Your task to perform on an android device: uninstall "Facebook Messenger" Image 0: 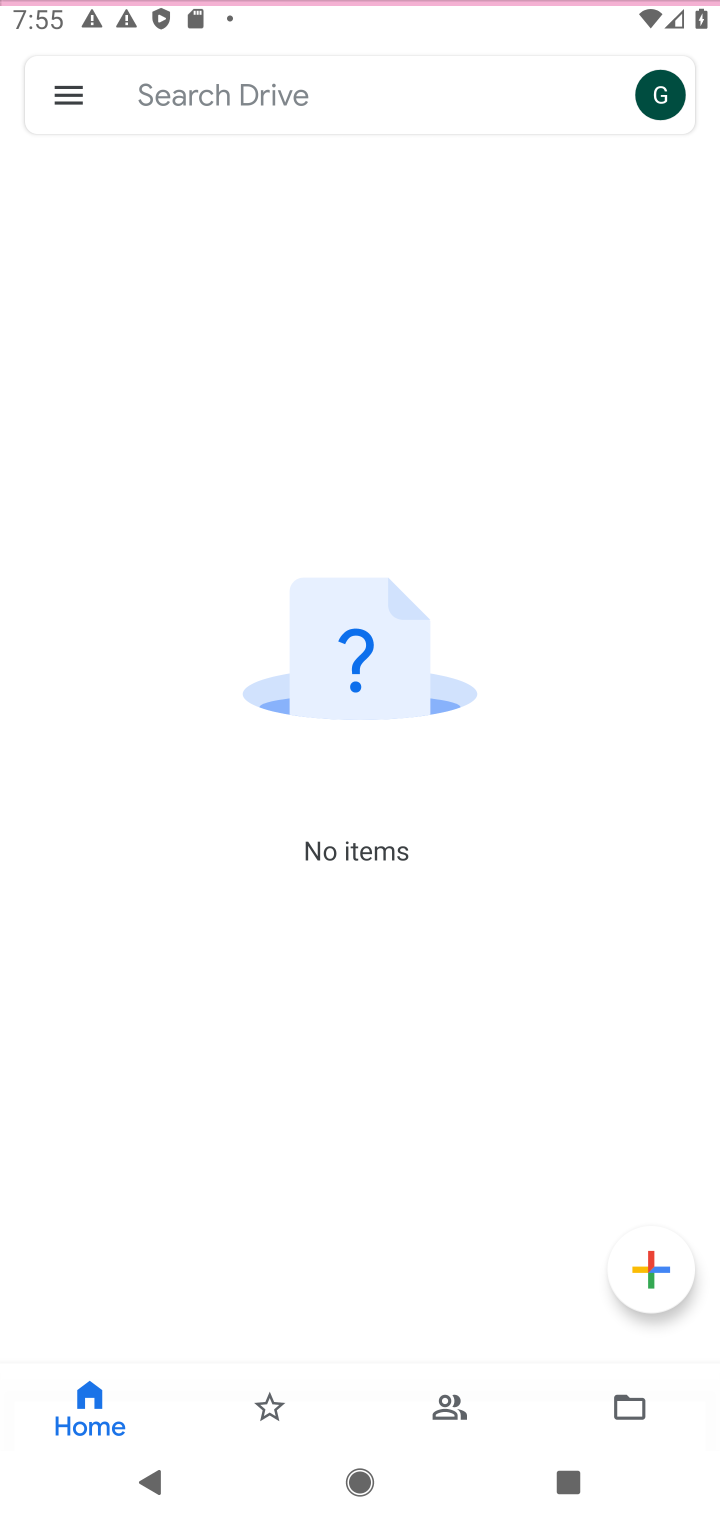
Step 0: press home button
Your task to perform on an android device: uninstall "Facebook Messenger" Image 1: 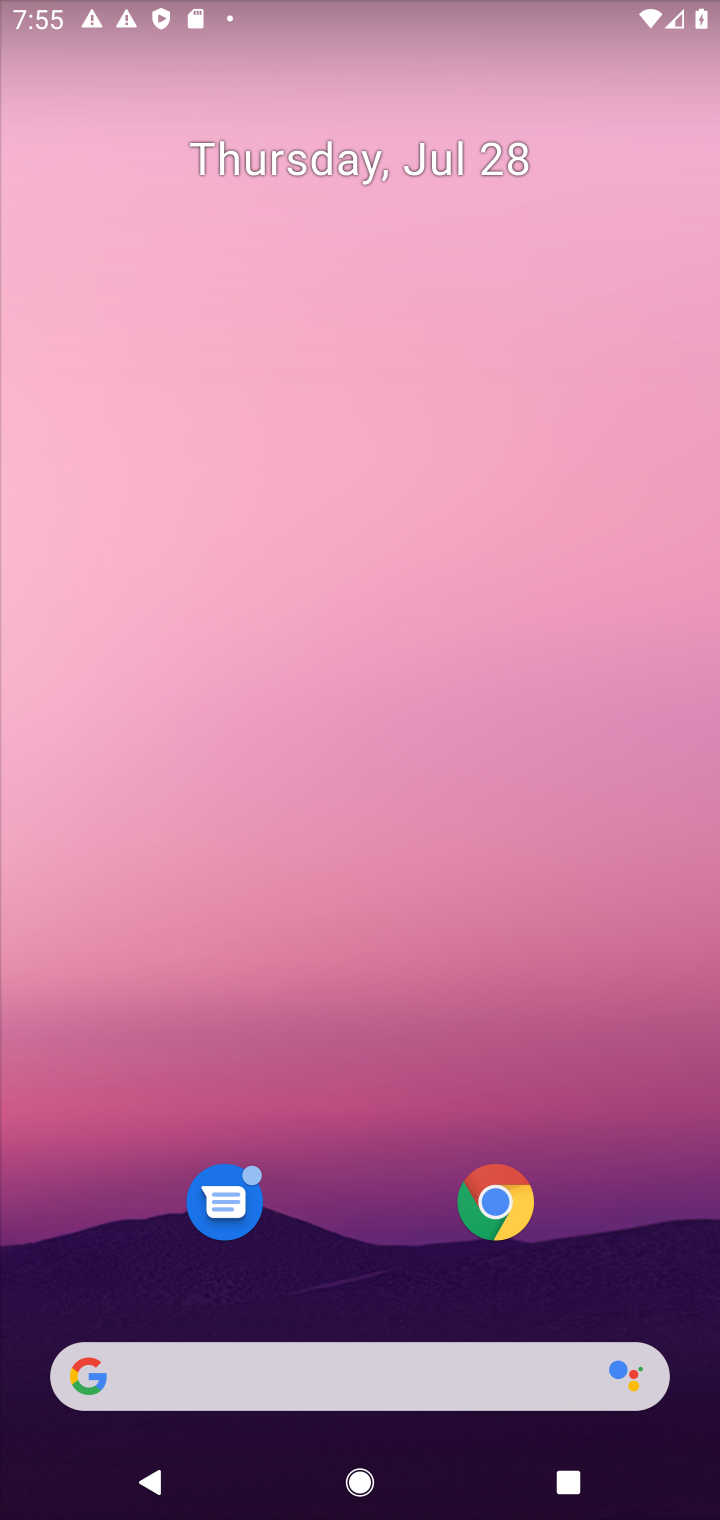
Step 1: drag from (365, 1045) to (417, 21)
Your task to perform on an android device: uninstall "Facebook Messenger" Image 2: 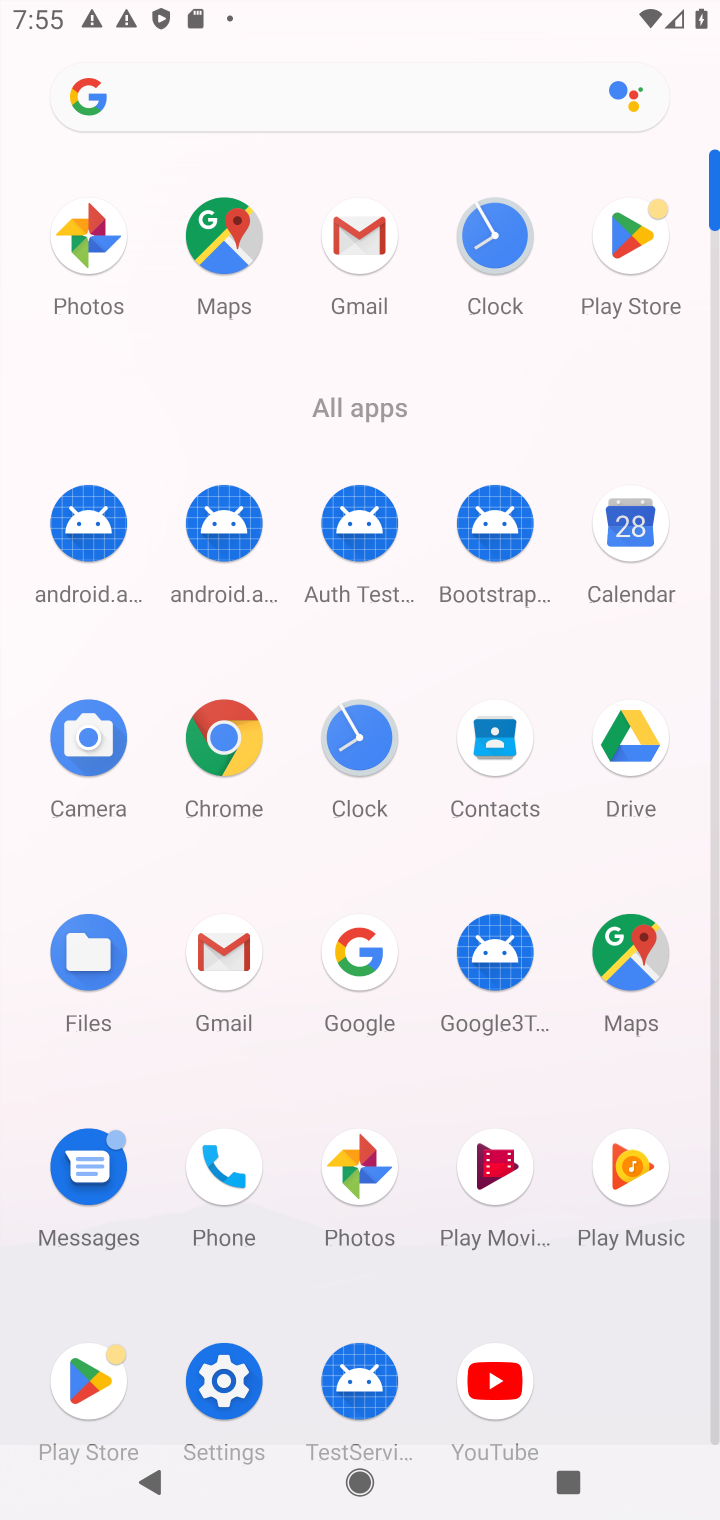
Step 2: click (70, 1380)
Your task to perform on an android device: uninstall "Facebook Messenger" Image 3: 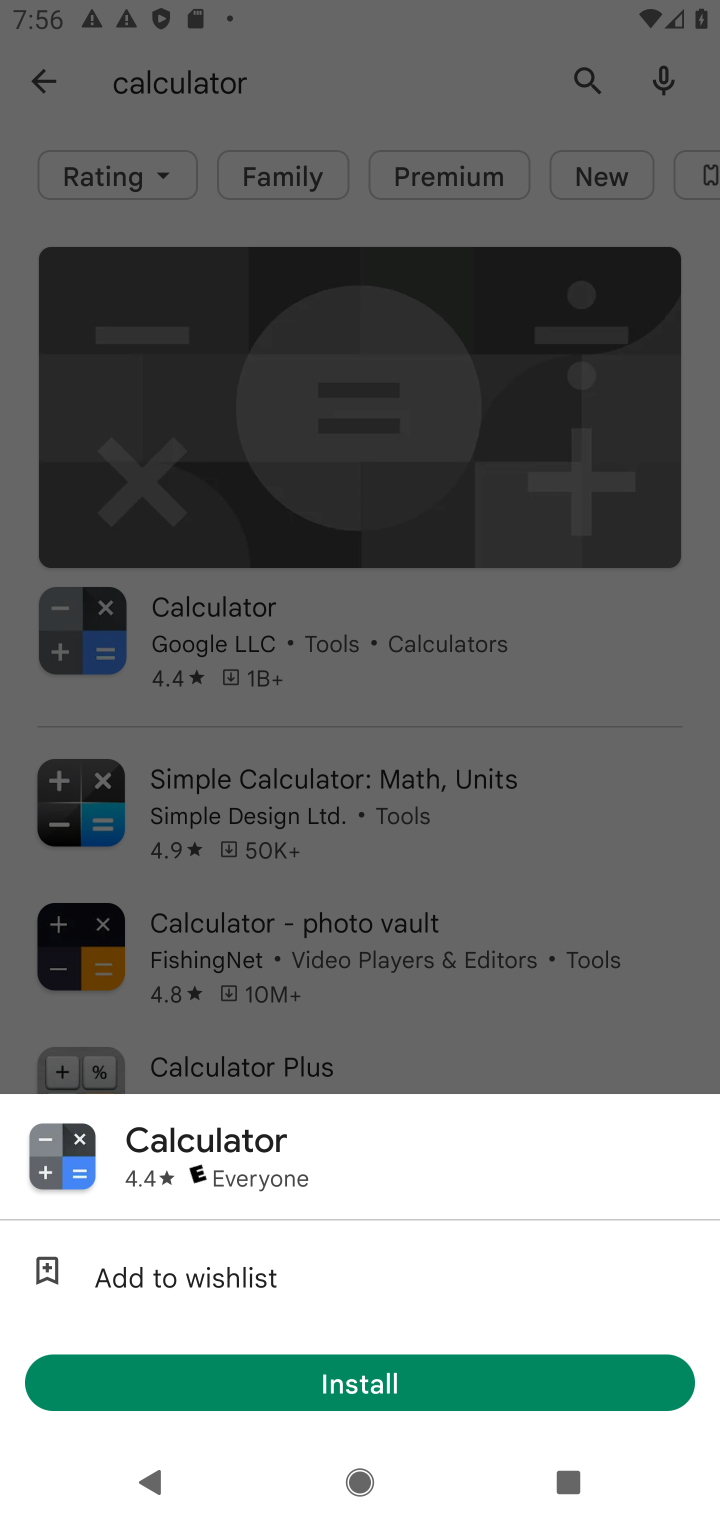
Step 3: click (31, 60)
Your task to perform on an android device: uninstall "Facebook Messenger" Image 4: 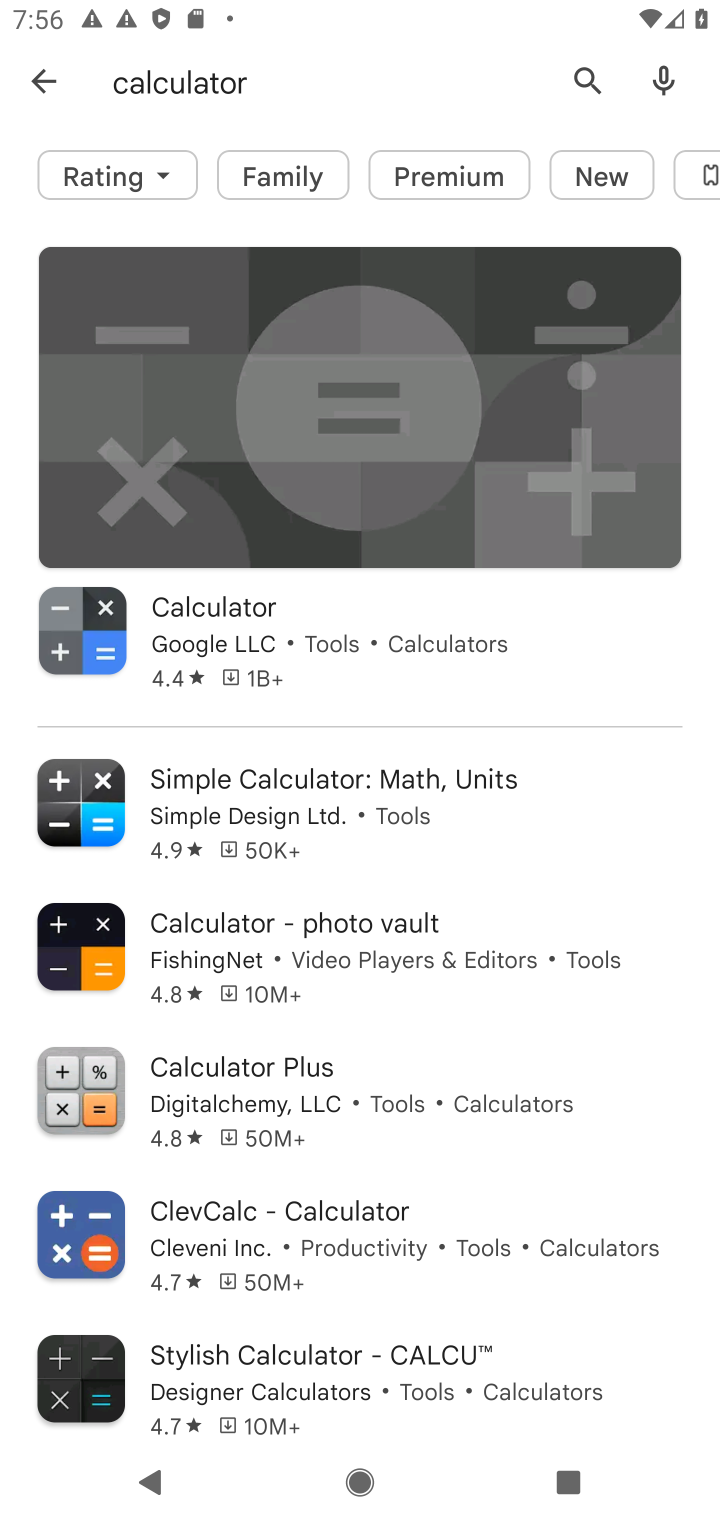
Step 4: click (48, 67)
Your task to perform on an android device: uninstall "Facebook Messenger" Image 5: 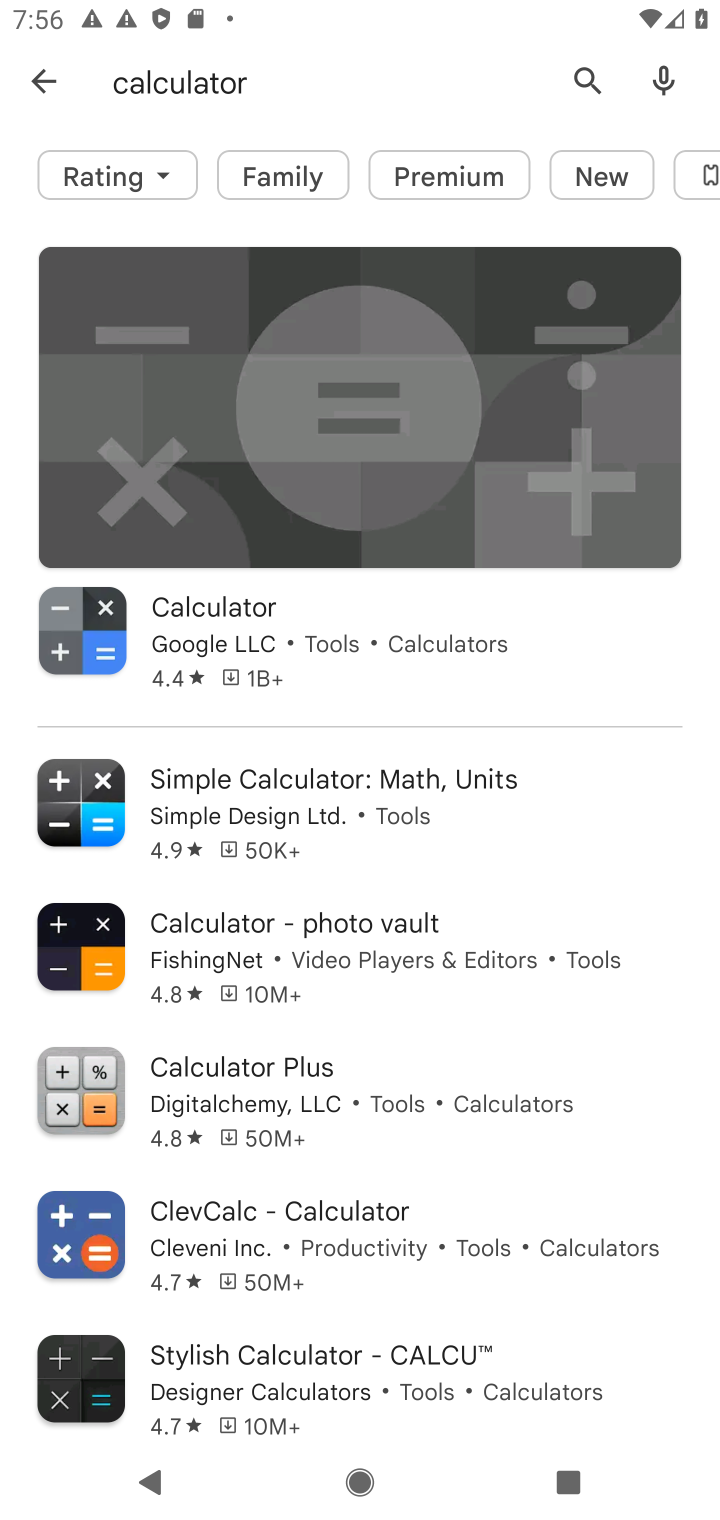
Step 5: click (55, 78)
Your task to perform on an android device: uninstall "Facebook Messenger" Image 6: 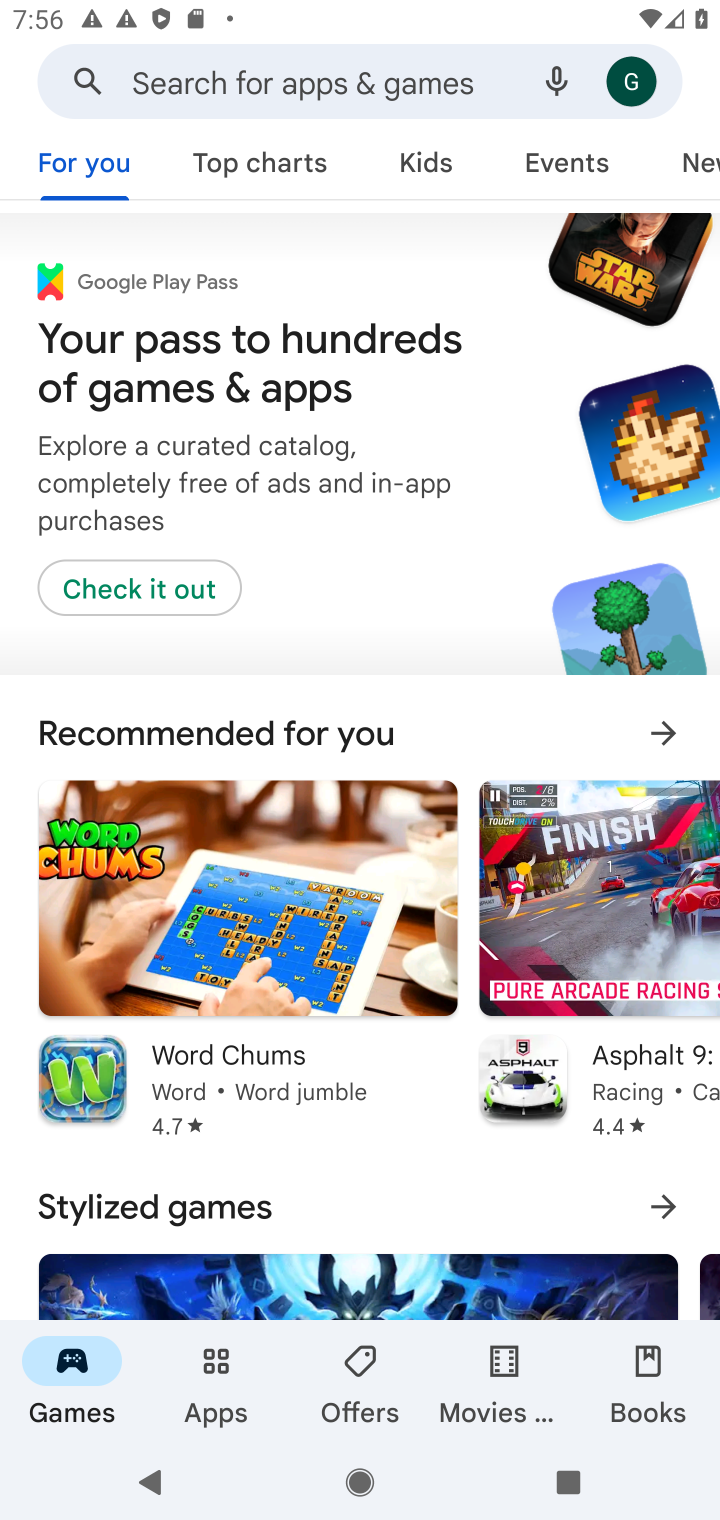
Step 6: click (330, 70)
Your task to perform on an android device: uninstall "Facebook Messenger" Image 7: 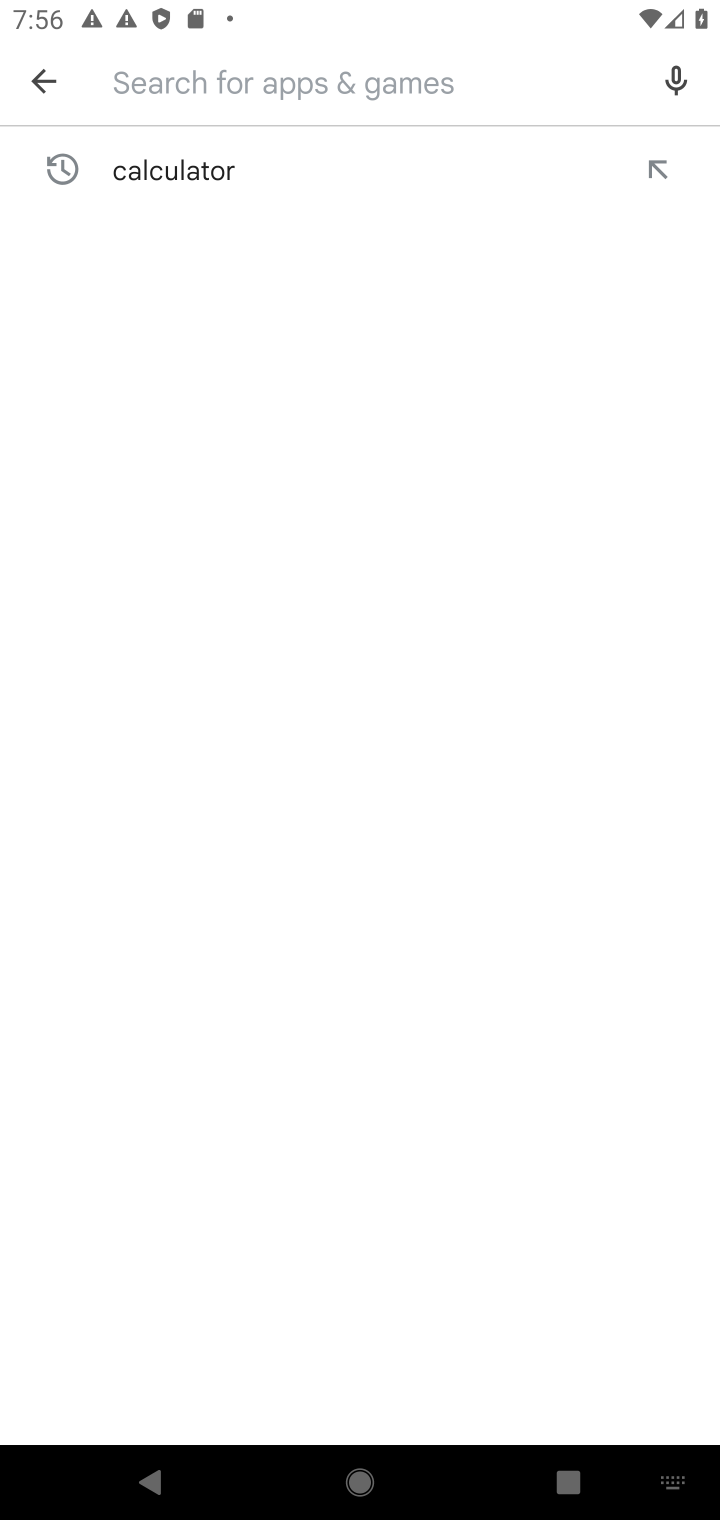
Step 7: type "facebook"
Your task to perform on an android device: uninstall "Facebook Messenger" Image 8: 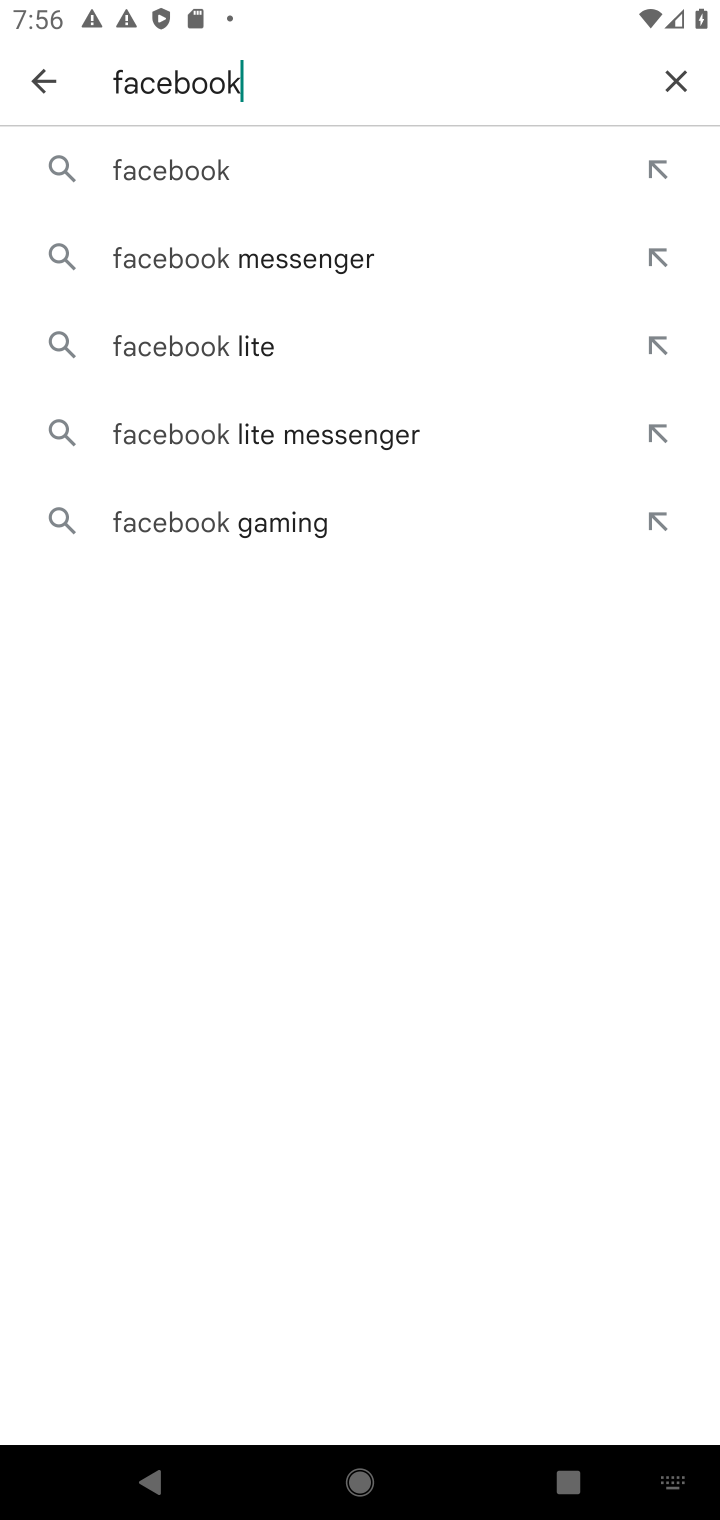
Step 8: click (353, 265)
Your task to perform on an android device: uninstall "Facebook Messenger" Image 9: 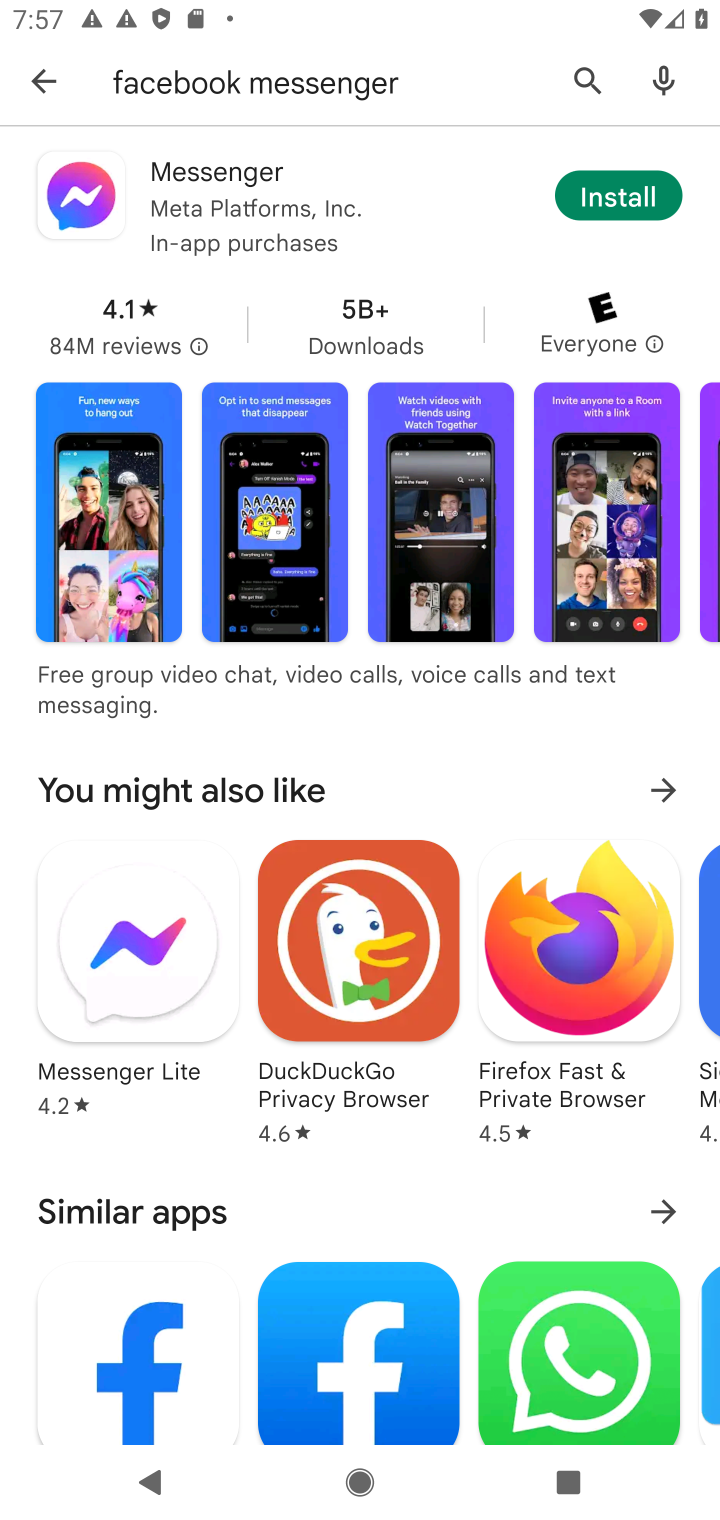
Step 9: task complete